Your task to perform on an android device: turn off location Image 0: 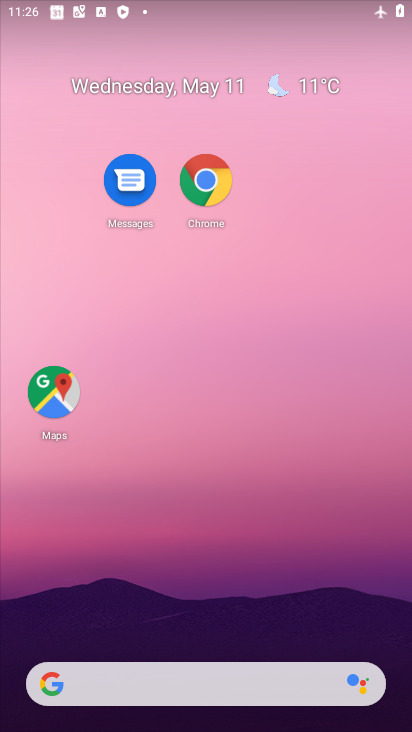
Step 0: drag from (255, 290) to (264, 199)
Your task to perform on an android device: turn off location Image 1: 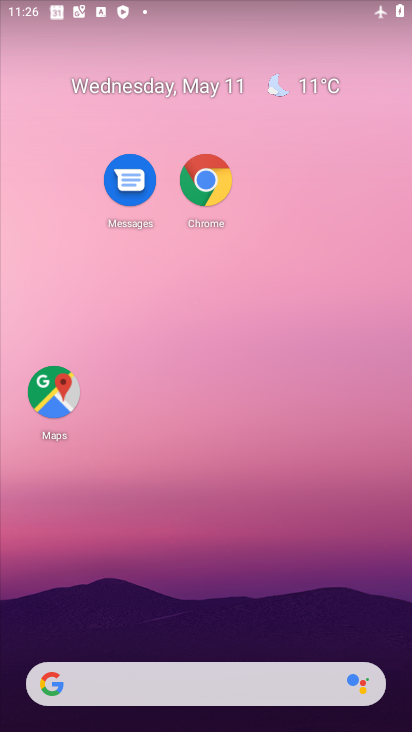
Step 1: drag from (287, 609) to (311, 113)
Your task to perform on an android device: turn off location Image 2: 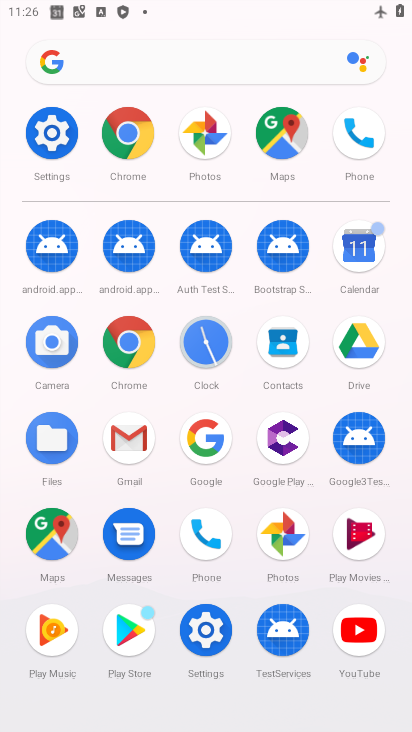
Step 2: click (54, 147)
Your task to perform on an android device: turn off location Image 3: 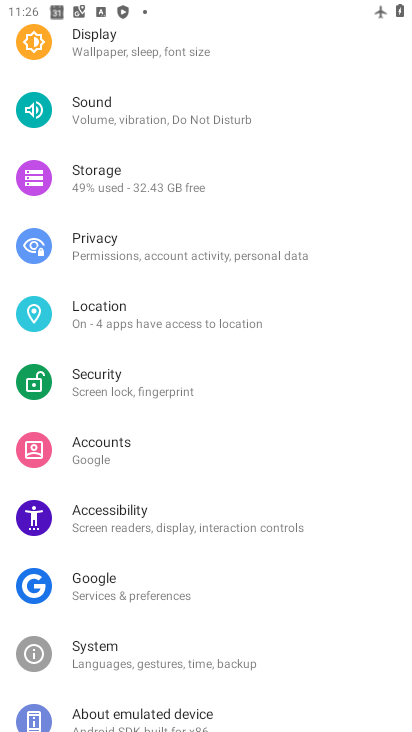
Step 3: click (142, 332)
Your task to perform on an android device: turn off location Image 4: 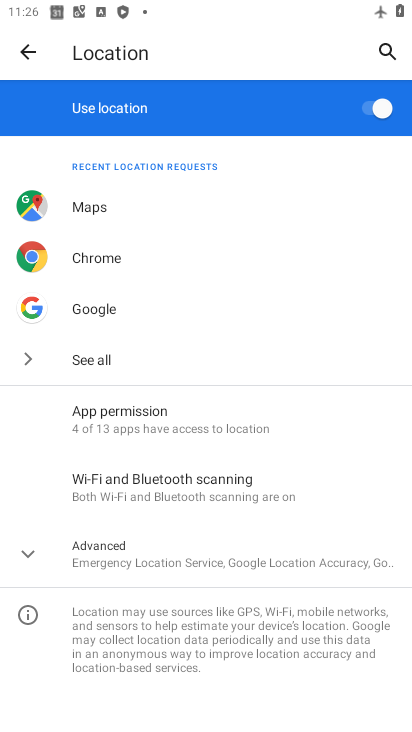
Step 4: click (370, 117)
Your task to perform on an android device: turn off location Image 5: 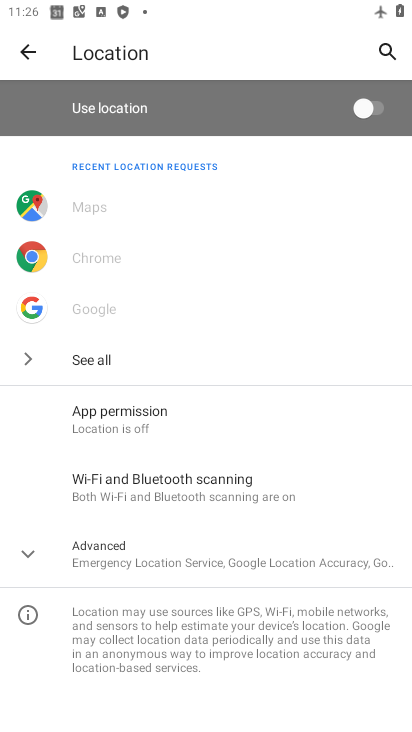
Step 5: task complete